Your task to perform on an android device: turn on showing notifications on the lock screen Image 0: 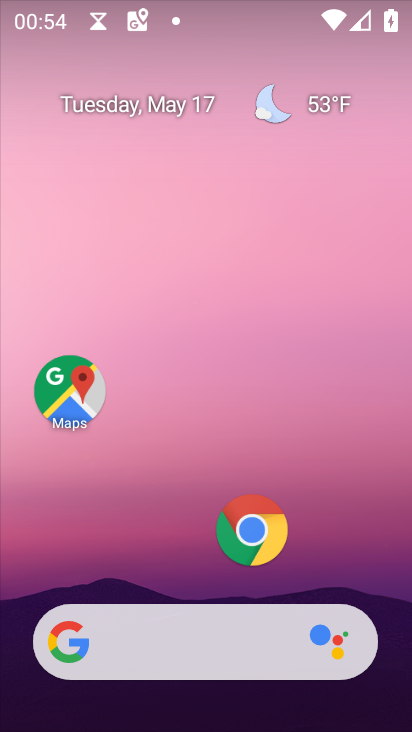
Step 0: drag from (375, 232) to (386, 96)
Your task to perform on an android device: turn on showing notifications on the lock screen Image 1: 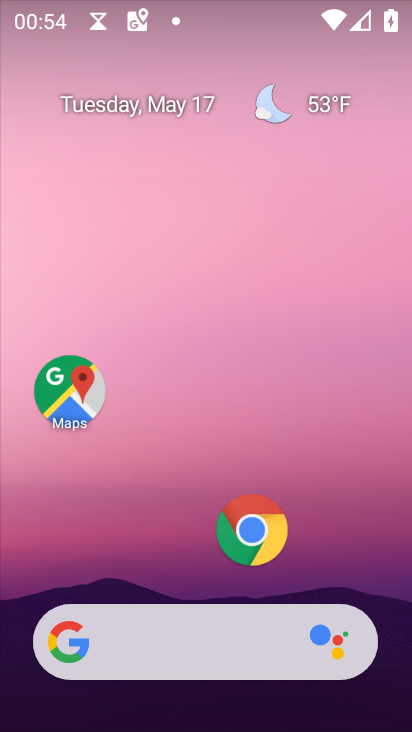
Step 1: drag from (334, 540) to (315, 37)
Your task to perform on an android device: turn on showing notifications on the lock screen Image 2: 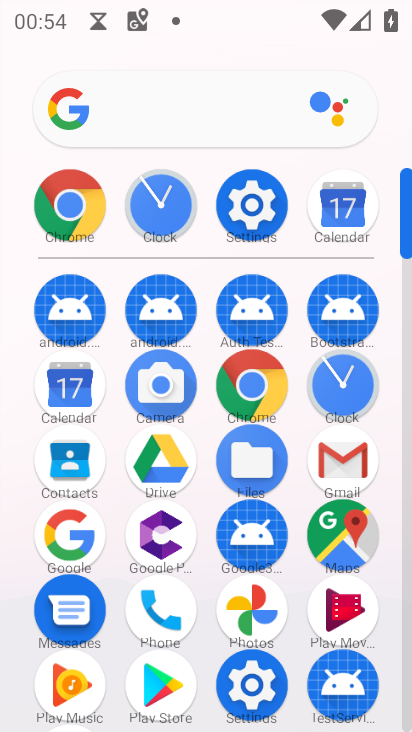
Step 2: click (254, 206)
Your task to perform on an android device: turn on showing notifications on the lock screen Image 3: 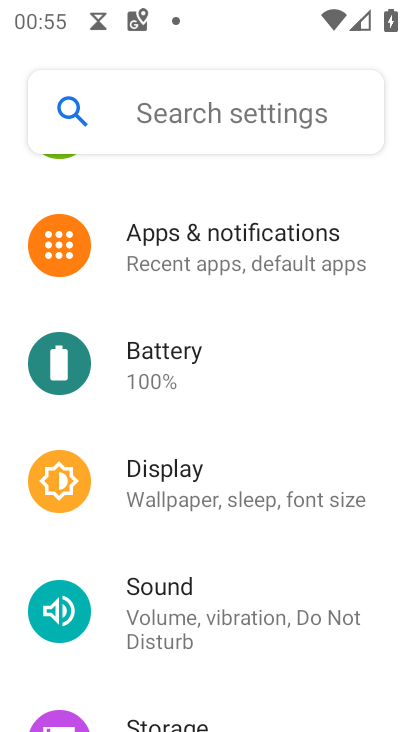
Step 3: click (321, 247)
Your task to perform on an android device: turn on showing notifications on the lock screen Image 4: 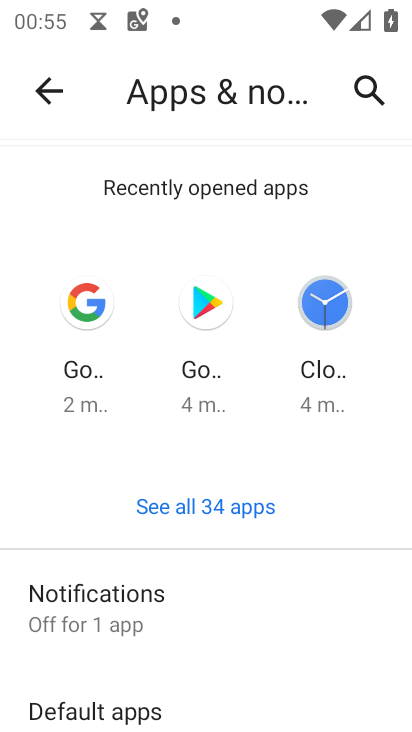
Step 4: click (96, 628)
Your task to perform on an android device: turn on showing notifications on the lock screen Image 5: 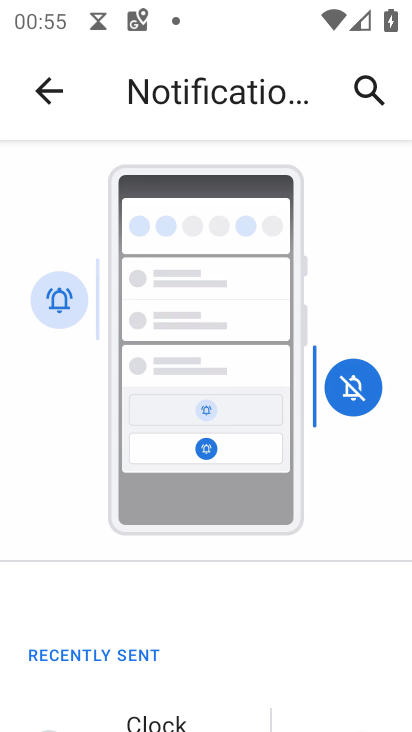
Step 5: drag from (317, 555) to (252, 26)
Your task to perform on an android device: turn on showing notifications on the lock screen Image 6: 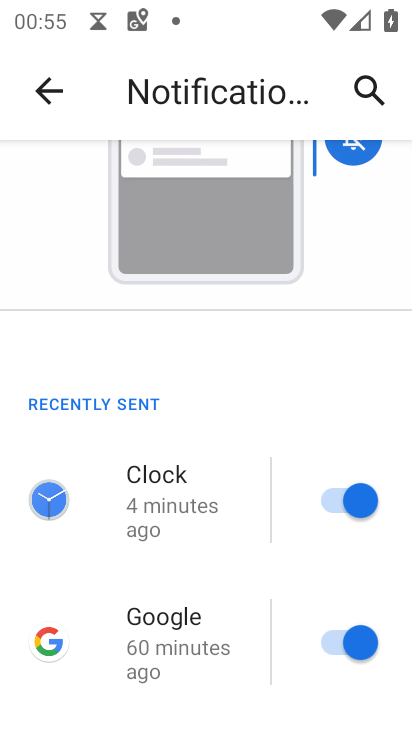
Step 6: drag from (259, 701) to (246, 491)
Your task to perform on an android device: turn on showing notifications on the lock screen Image 7: 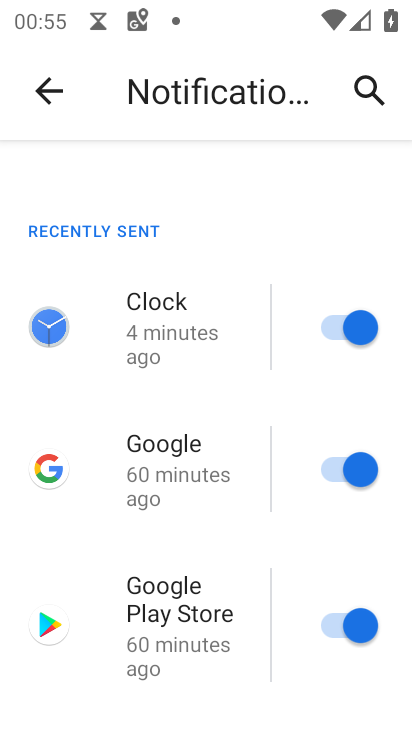
Step 7: drag from (246, 491) to (198, 69)
Your task to perform on an android device: turn on showing notifications on the lock screen Image 8: 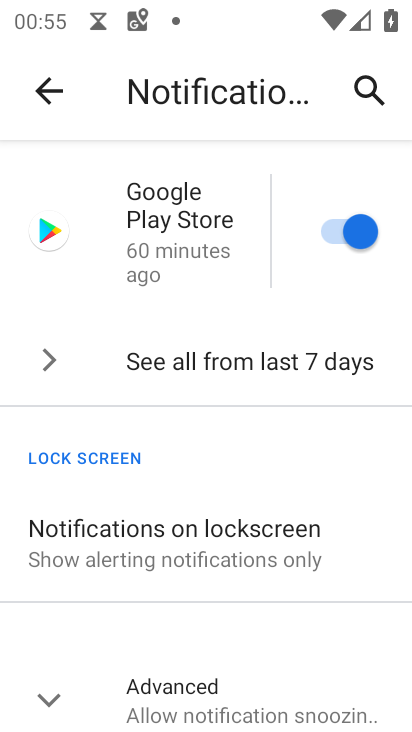
Step 8: click (228, 532)
Your task to perform on an android device: turn on showing notifications on the lock screen Image 9: 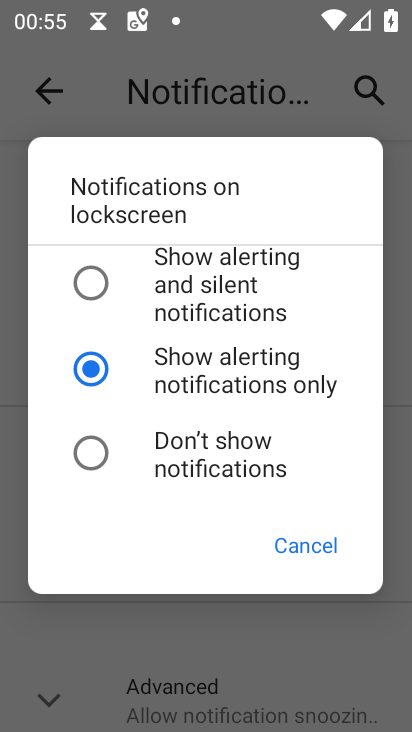
Step 9: click (219, 257)
Your task to perform on an android device: turn on showing notifications on the lock screen Image 10: 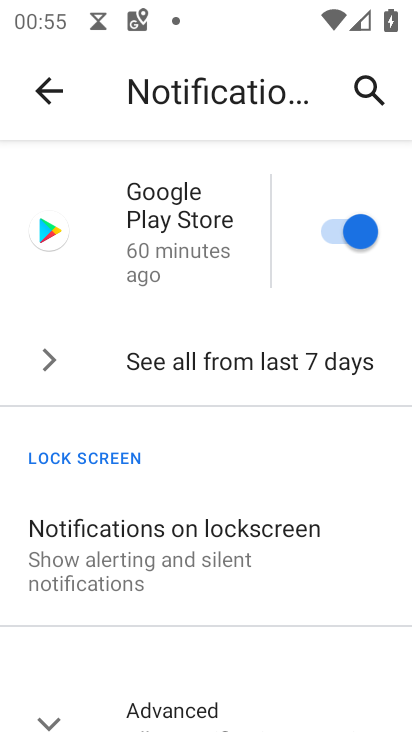
Step 10: task complete